Your task to perform on an android device: turn off data saver in the chrome app Image 0: 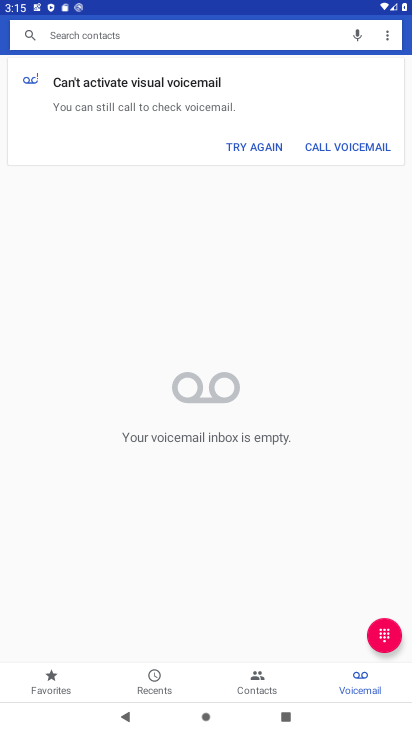
Step 0: press home button
Your task to perform on an android device: turn off data saver in the chrome app Image 1: 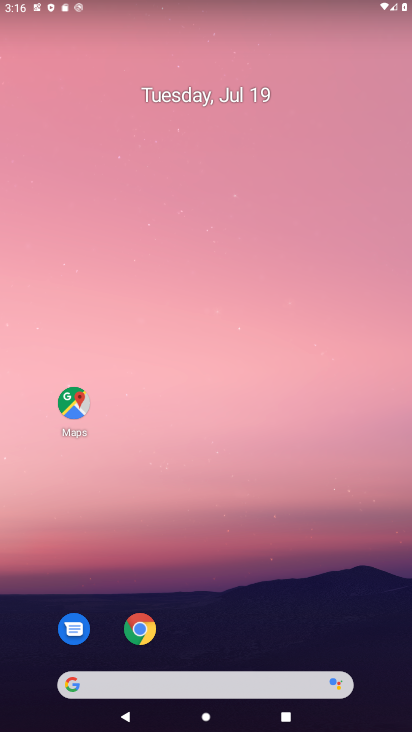
Step 1: click (141, 618)
Your task to perform on an android device: turn off data saver in the chrome app Image 2: 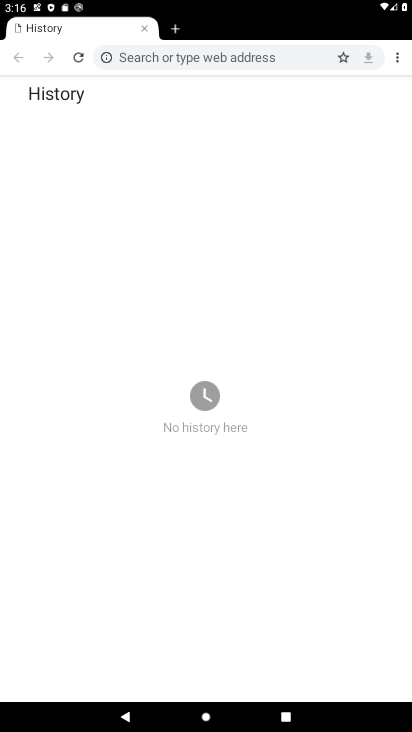
Step 2: drag from (410, 53) to (281, 297)
Your task to perform on an android device: turn off data saver in the chrome app Image 3: 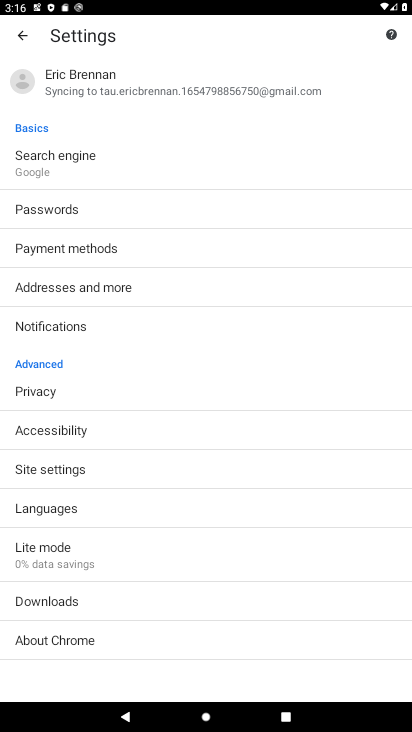
Step 3: click (93, 546)
Your task to perform on an android device: turn off data saver in the chrome app Image 4: 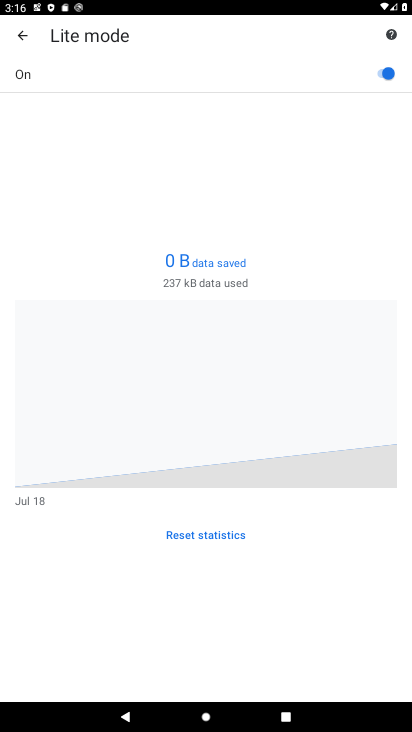
Step 4: click (384, 77)
Your task to perform on an android device: turn off data saver in the chrome app Image 5: 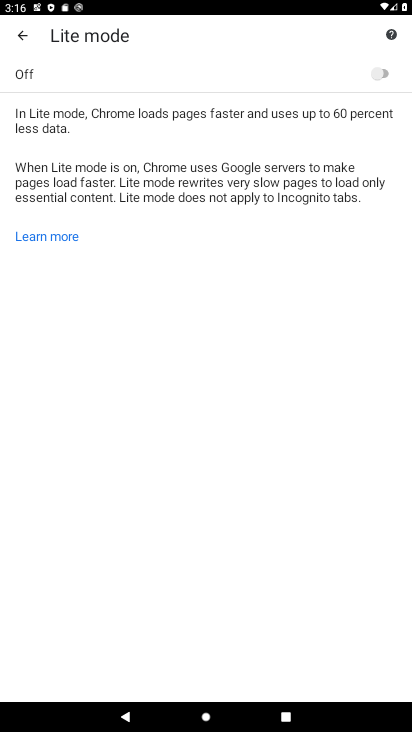
Step 5: task complete